Your task to perform on an android device: Open network settings Image 0: 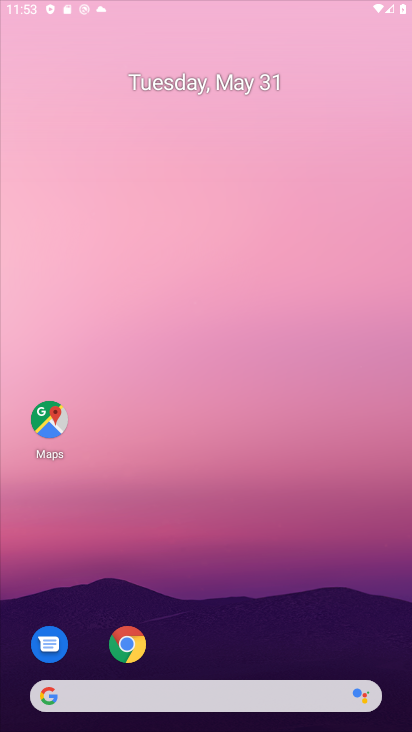
Step 0: click (327, 139)
Your task to perform on an android device: Open network settings Image 1: 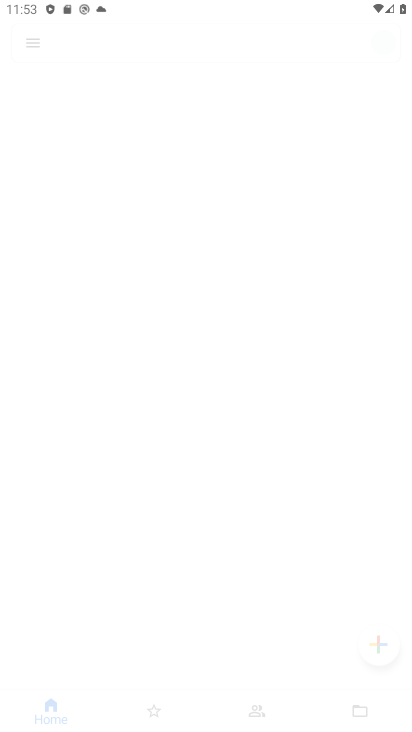
Step 1: drag from (318, 621) to (332, 236)
Your task to perform on an android device: Open network settings Image 2: 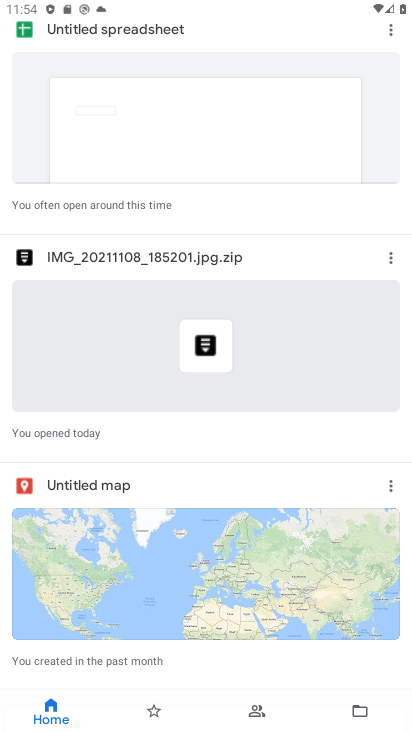
Step 2: press home button
Your task to perform on an android device: Open network settings Image 3: 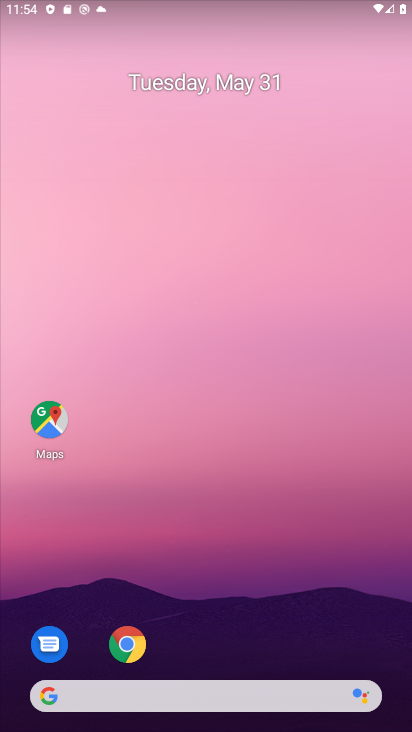
Step 3: drag from (359, 580) to (369, 198)
Your task to perform on an android device: Open network settings Image 4: 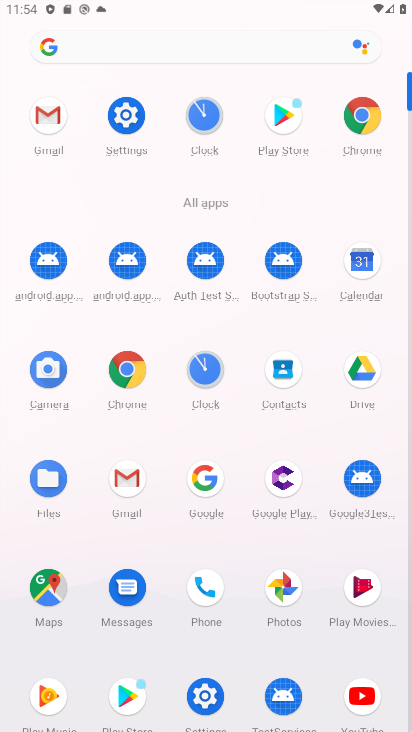
Step 4: click (132, 117)
Your task to perform on an android device: Open network settings Image 5: 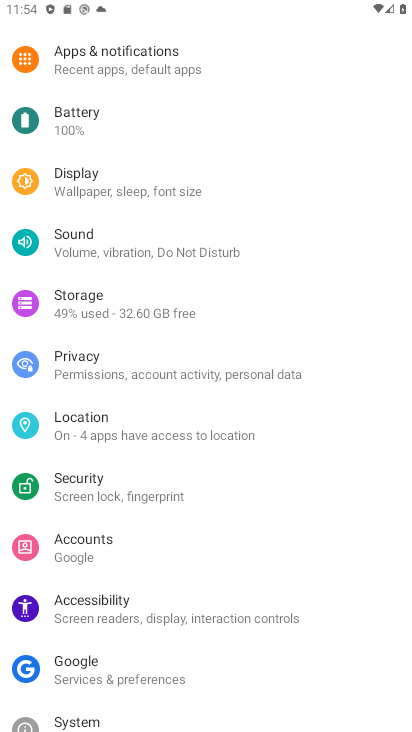
Step 5: drag from (200, 110) to (184, 351)
Your task to perform on an android device: Open network settings Image 6: 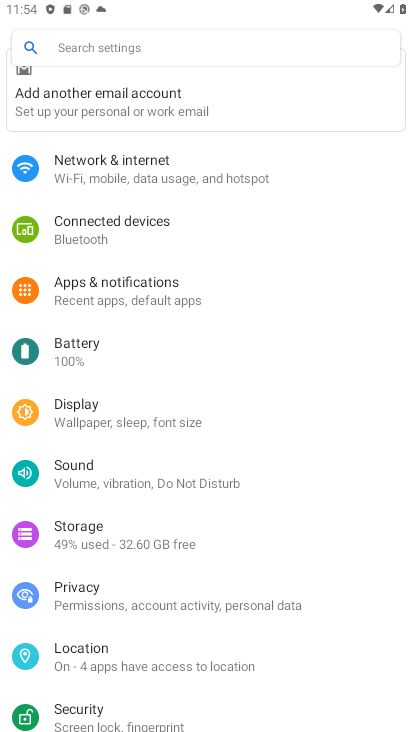
Step 6: click (119, 157)
Your task to perform on an android device: Open network settings Image 7: 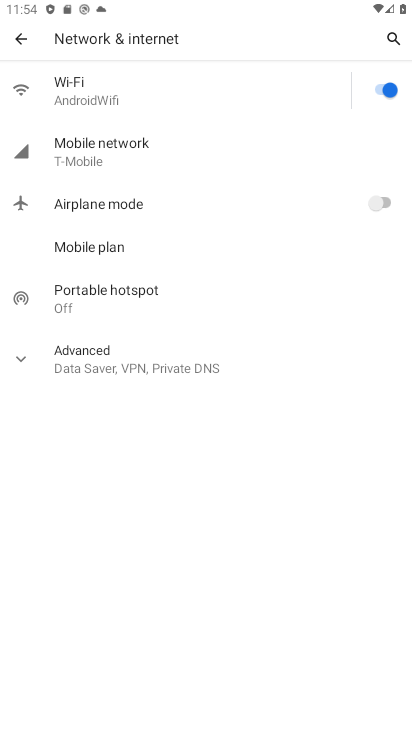
Step 7: click (145, 161)
Your task to perform on an android device: Open network settings Image 8: 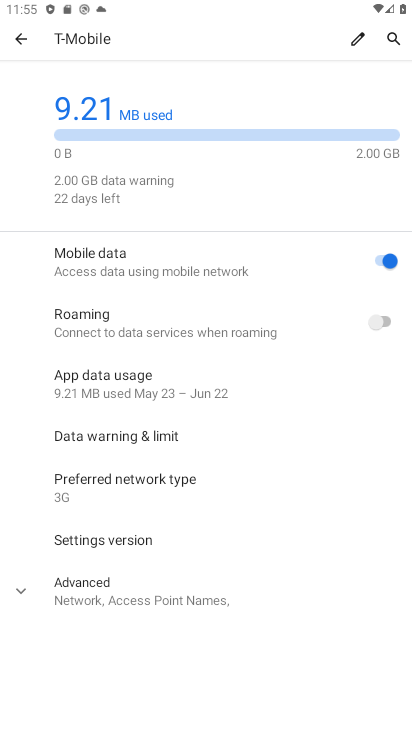
Step 8: task complete